Your task to perform on an android device: toggle data saver in the chrome app Image 0: 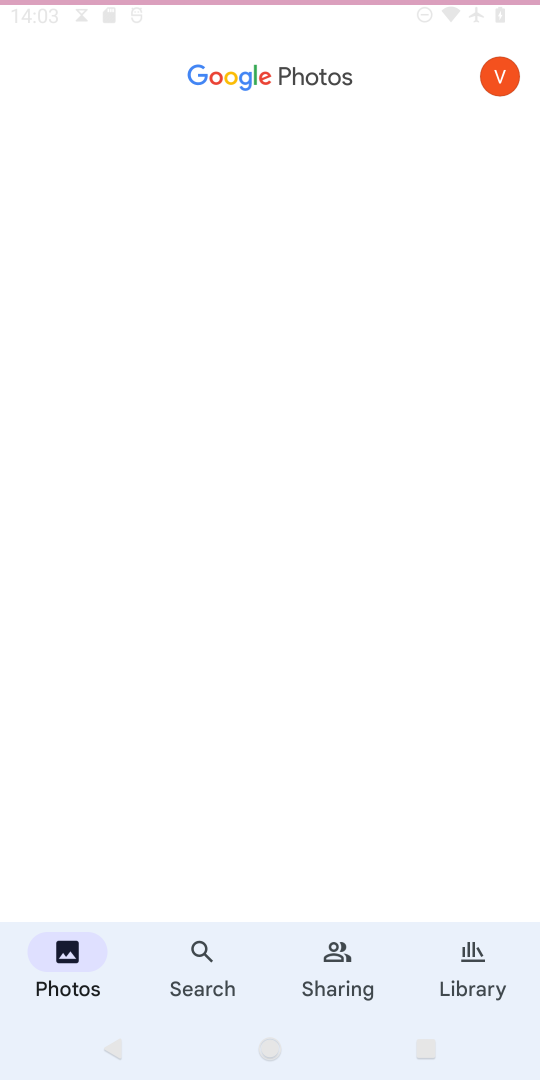
Step 0: press home button
Your task to perform on an android device: toggle data saver in the chrome app Image 1: 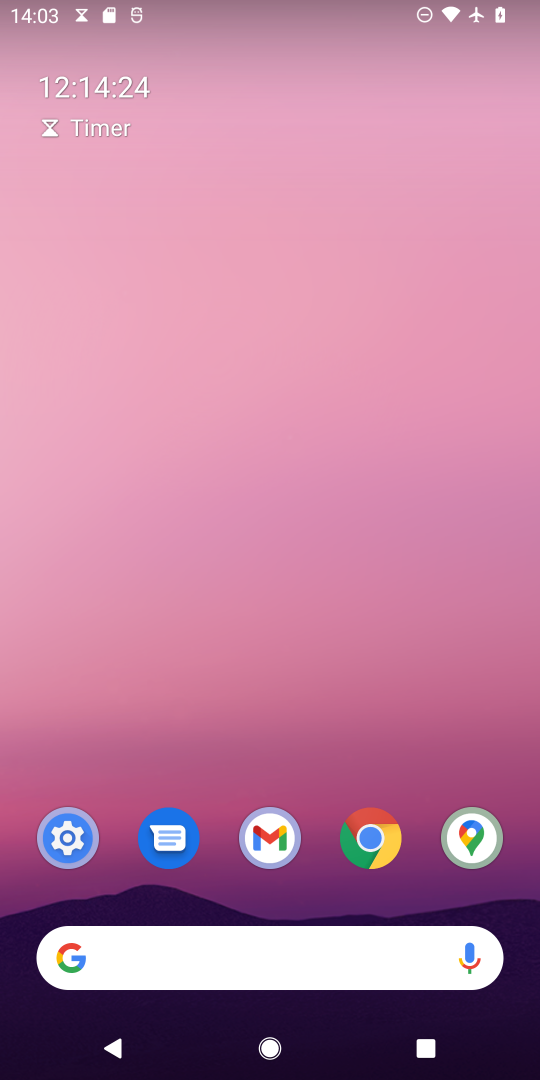
Step 1: click (378, 831)
Your task to perform on an android device: toggle data saver in the chrome app Image 2: 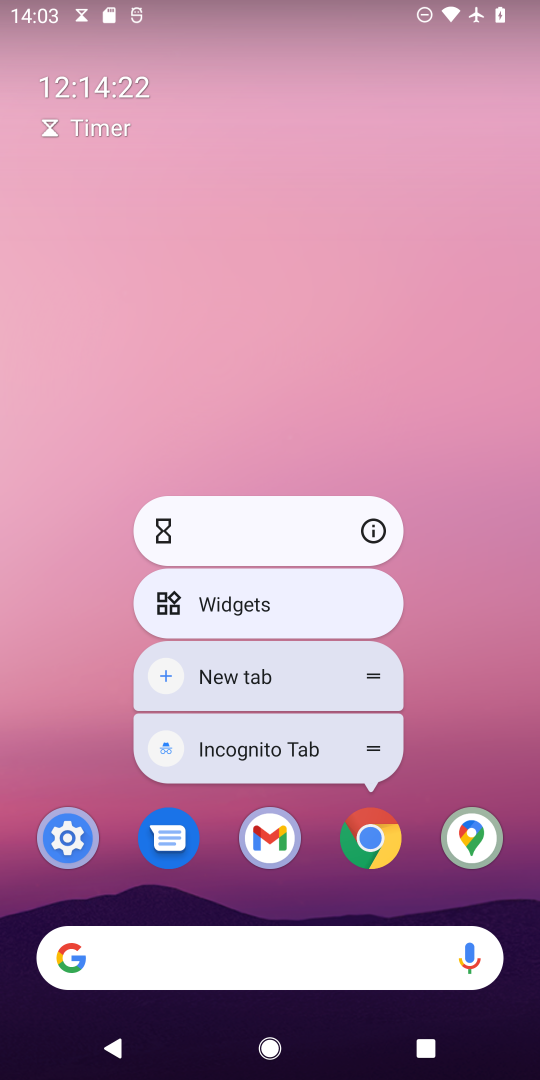
Step 2: click (378, 831)
Your task to perform on an android device: toggle data saver in the chrome app Image 3: 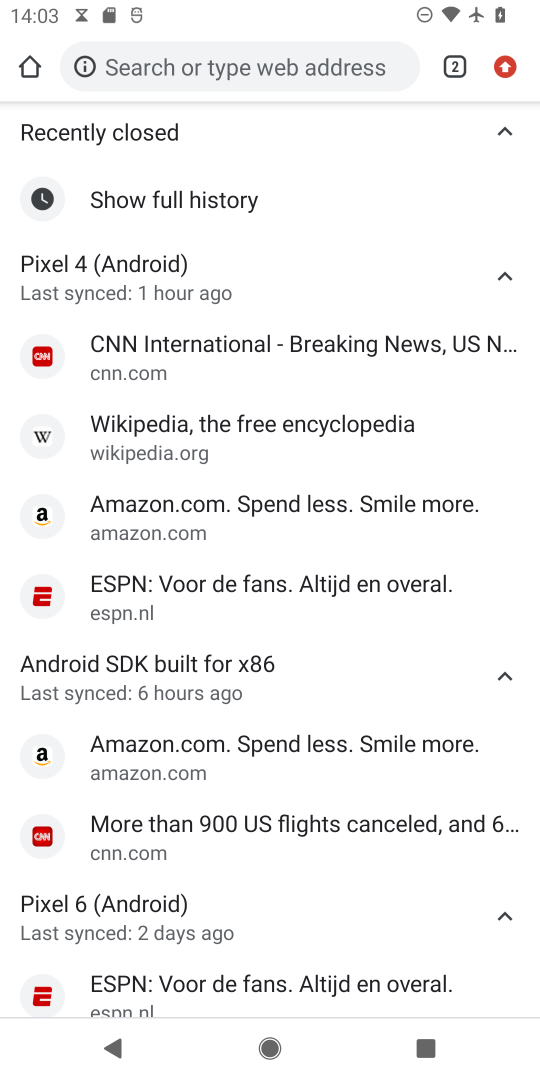
Step 3: drag from (506, 75) to (353, 672)
Your task to perform on an android device: toggle data saver in the chrome app Image 4: 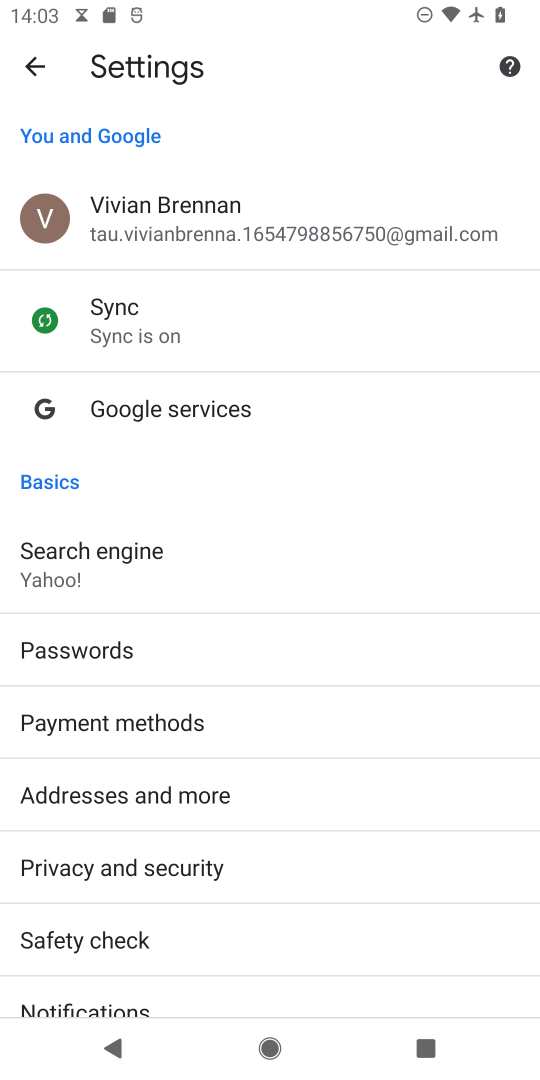
Step 4: drag from (278, 945) to (243, 274)
Your task to perform on an android device: toggle data saver in the chrome app Image 5: 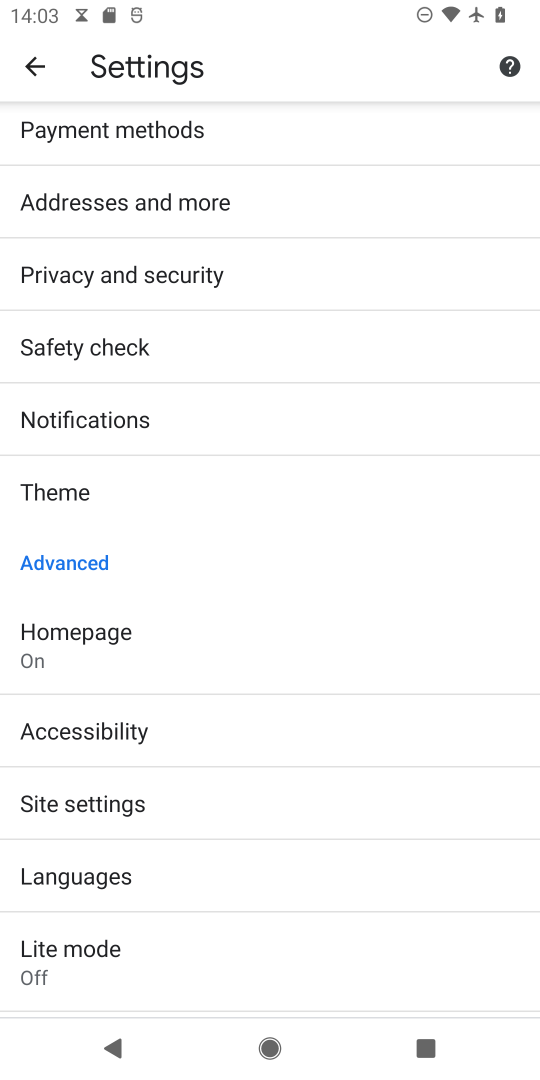
Step 5: click (70, 946)
Your task to perform on an android device: toggle data saver in the chrome app Image 6: 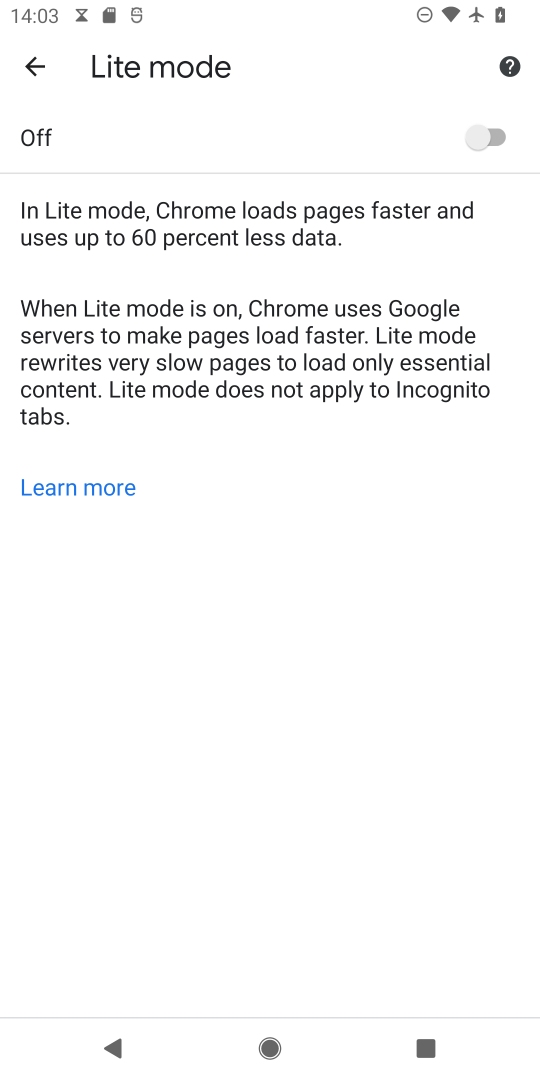
Step 6: click (478, 135)
Your task to perform on an android device: toggle data saver in the chrome app Image 7: 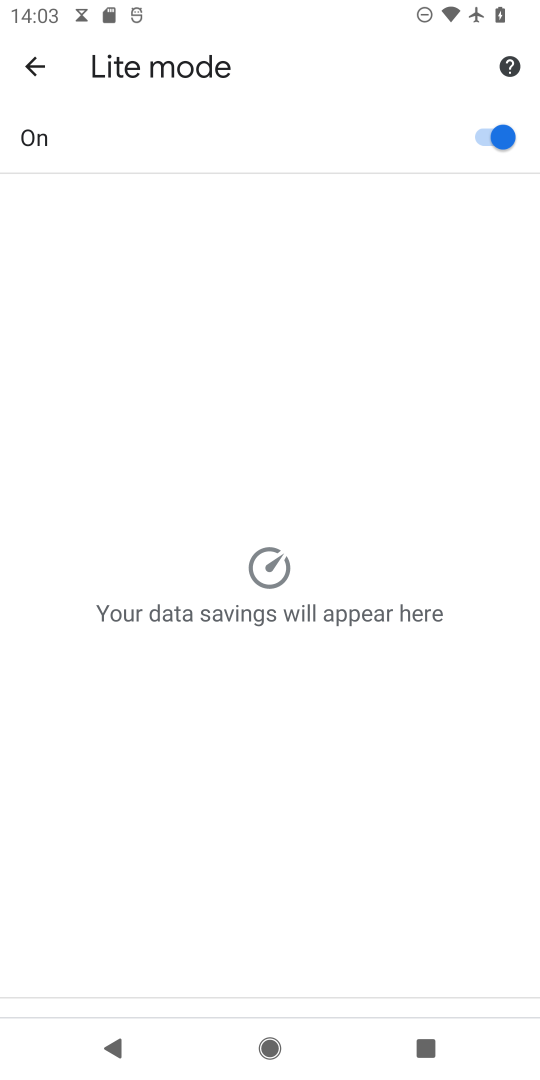
Step 7: task complete